Your task to perform on an android device: turn off data saver in the chrome app Image 0: 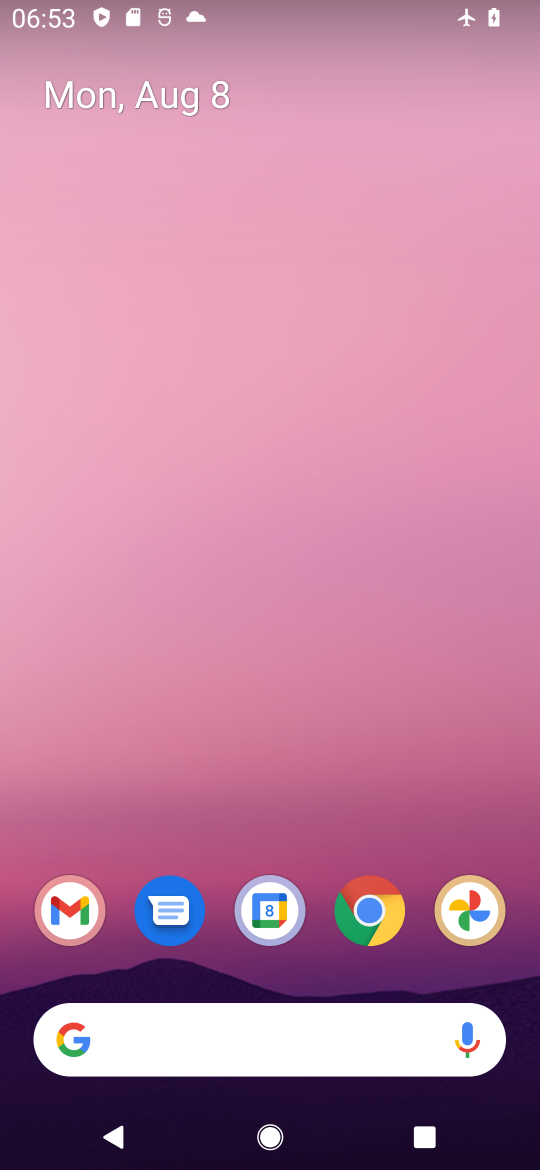
Step 0: click (367, 908)
Your task to perform on an android device: turn off data saver in the chrome app Image 1: 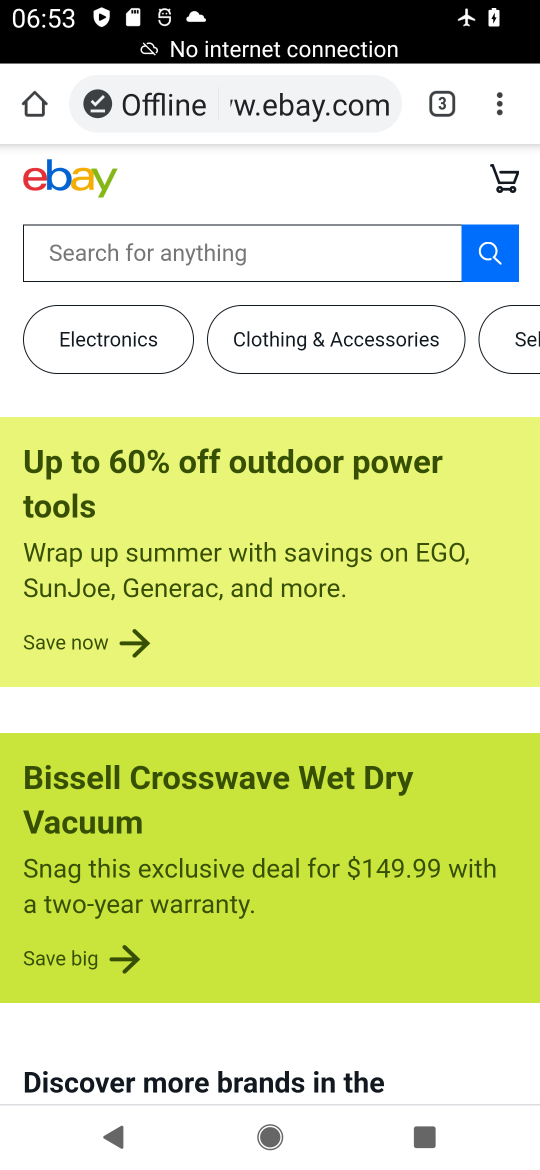
Step 1: click (502, 106)
Your task to perform on an android device: turn off data saver in the chrome app Image 2: 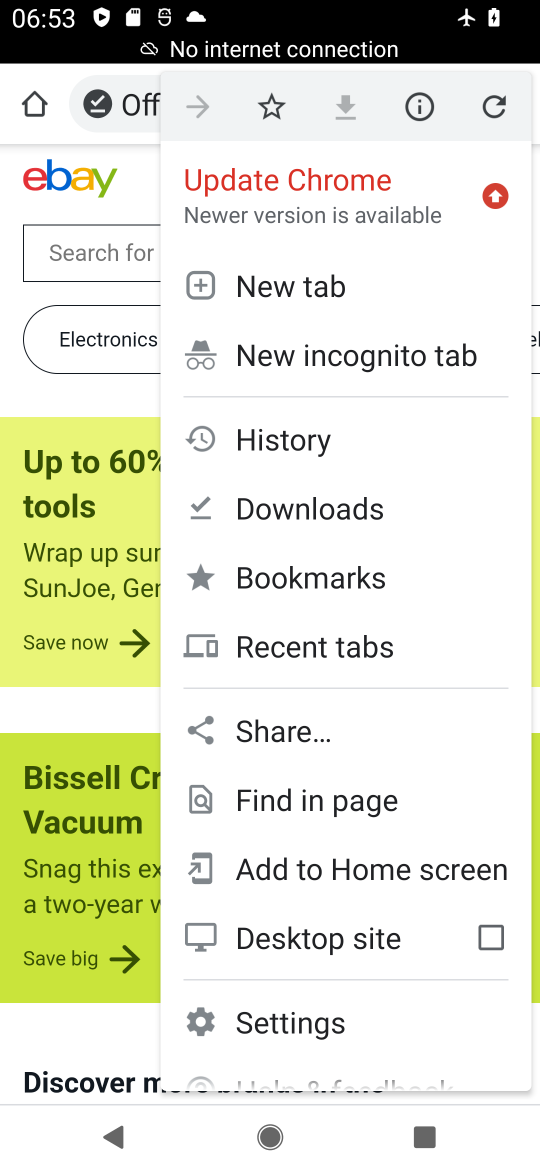
Step 2: drag from (341, 692) to (446, 528)
Your task to perform on an android device: turn off data saver in the chrome app Image 3: 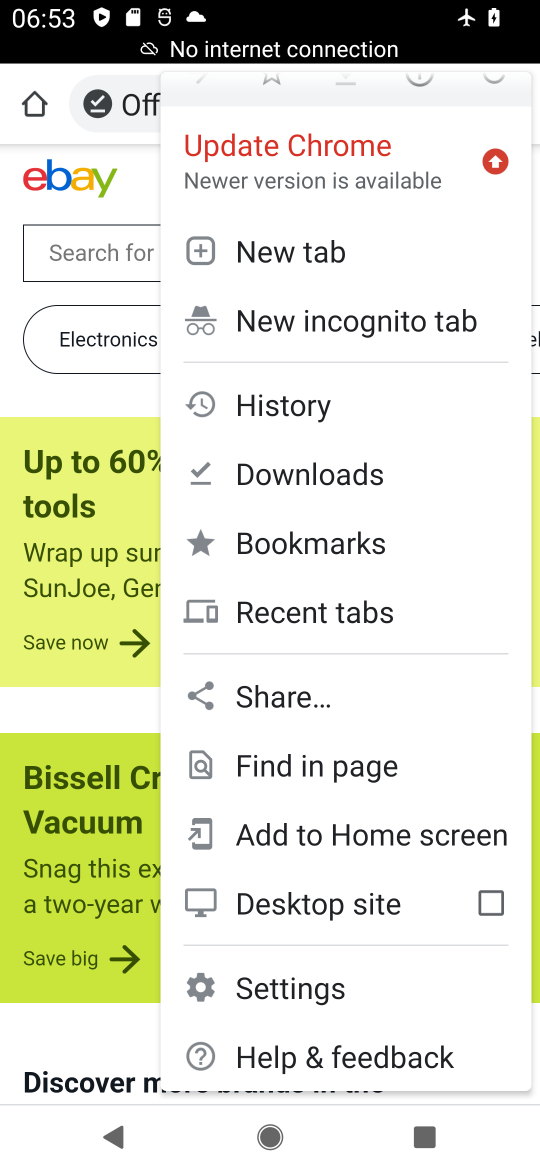
Step 3: click (304, 989)
Your task to perform on an android device: turn off data saver in the chrome app Image 4: 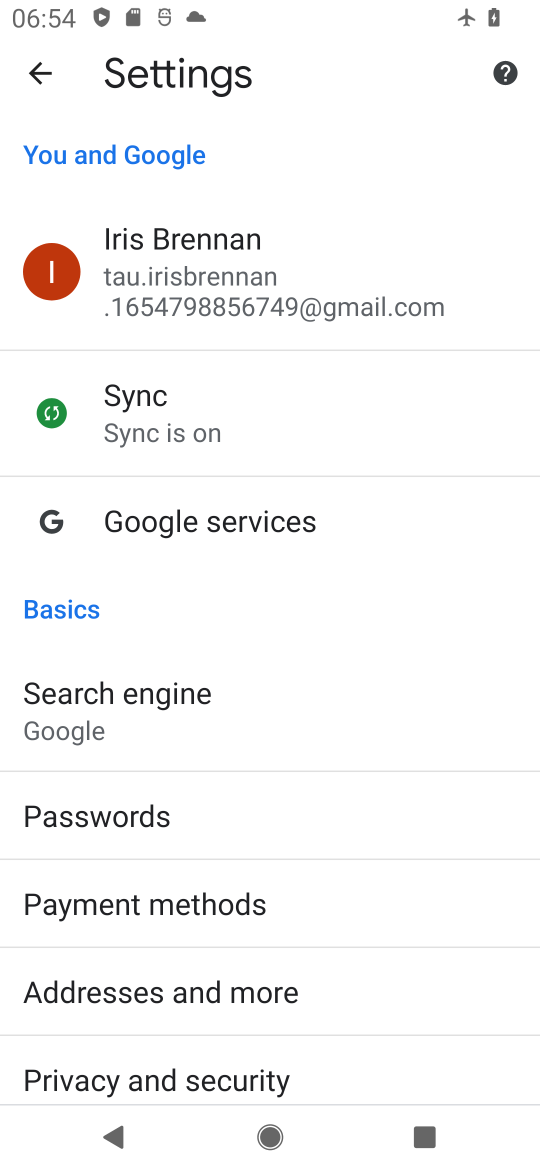
Step 4: drag from (161, 719) to (247, 577)
Your task to perform on an android device: turn off data saver in the chrome app Image 5: 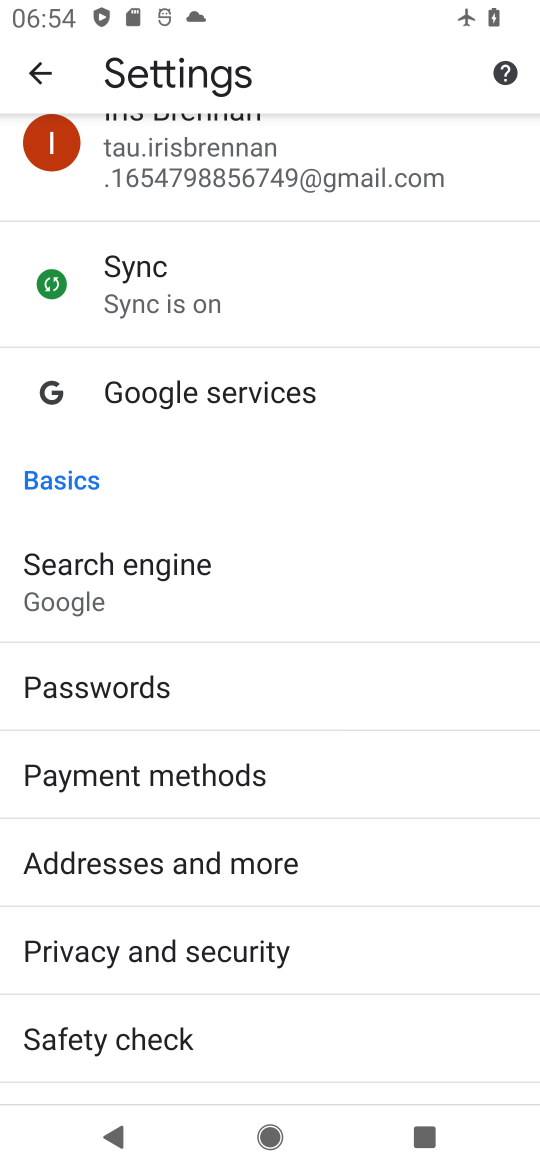
Step 5: drag from (153, 789) to (221, 649)
Your task to perform on an android device: turn off data saver in the chrome app Image 6: 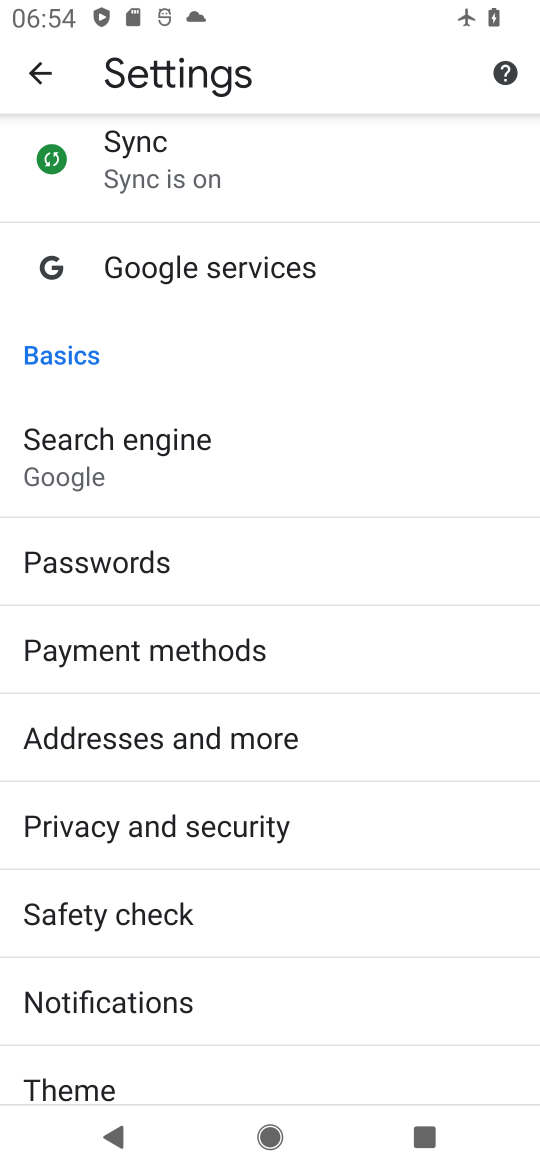
Step 6: drag from (214, 882) to (287, 762)
Your task to perform on an android device: turn off data saver in the chrome app Image 7: 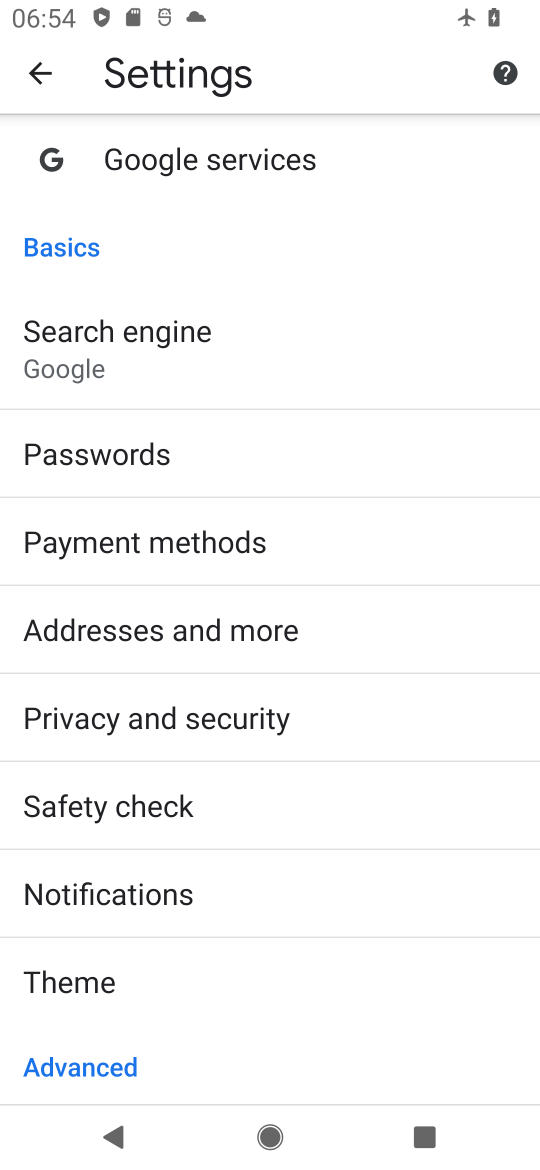
Step 7: drag from (172, 884) to (264, 748)
Your task to perform on an android device: turn off data saver in the chrome app Image 8: 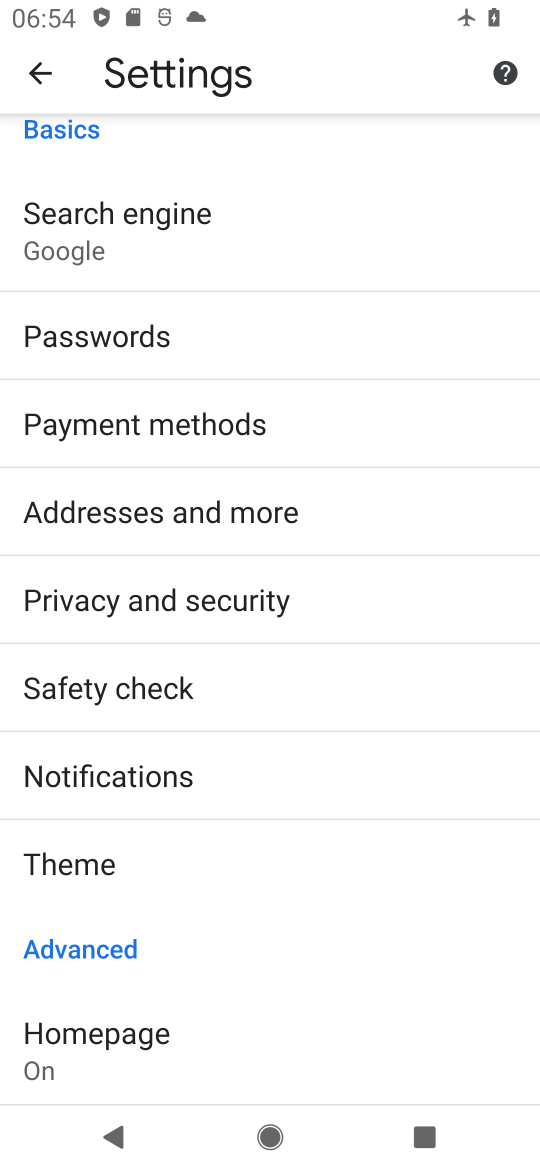
Step 8: drag from (152, 886) to (261, 714)
Your task to perform on an android device: turn off data saver in the chrome app Image 9: 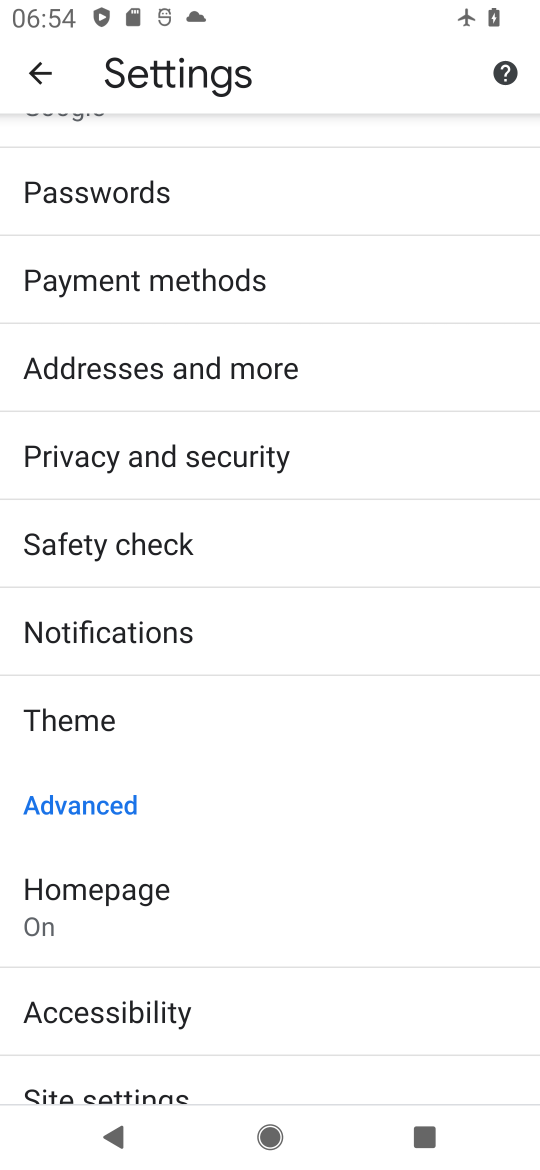
Step 9: drag from (157, 903) to (268, 737)
Your task to perform on an android device: turn off data saver in the chrome app Image 10: 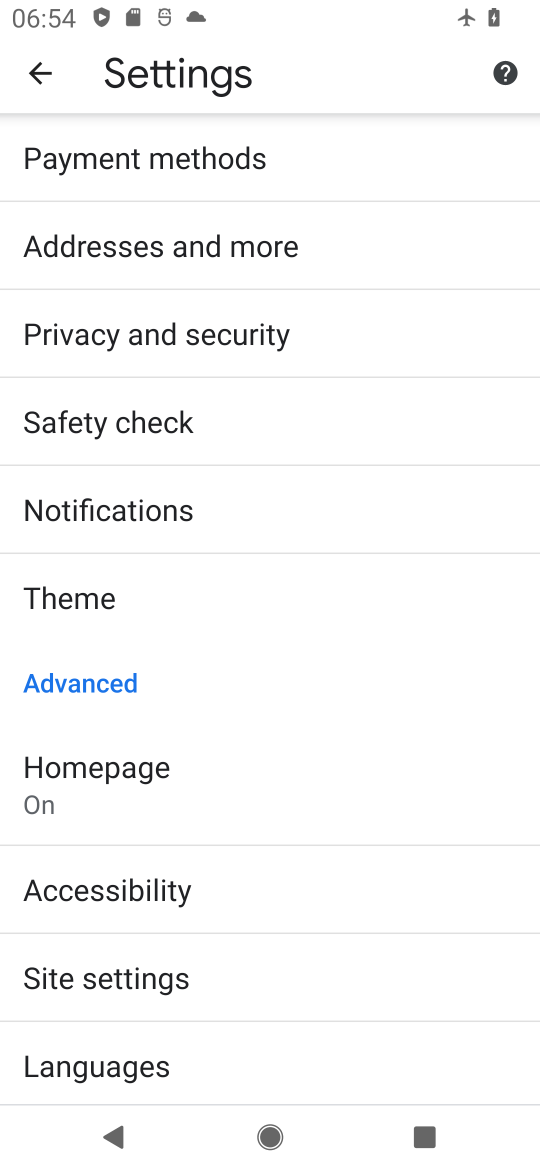
Step 10: drag from (171, 928) to (273, 763)
Your task to perform on an android device: turn off data saver in the chrome app Image 11: 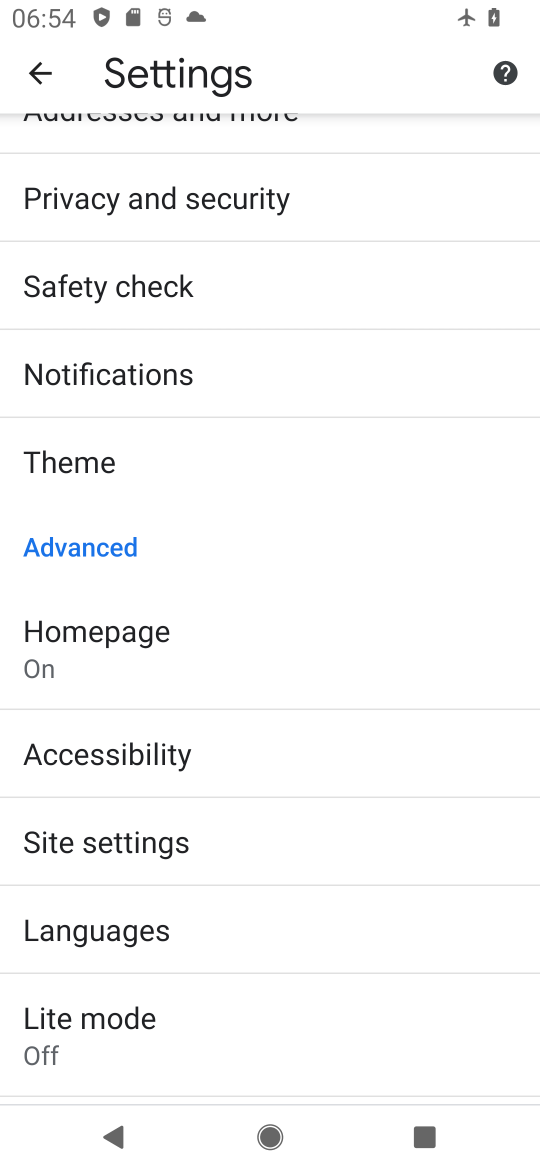
Step 11: drag from (200, 870) to (268, 754)
Your task to perform on an android device: turn off data saver in the chrome app Image 12: 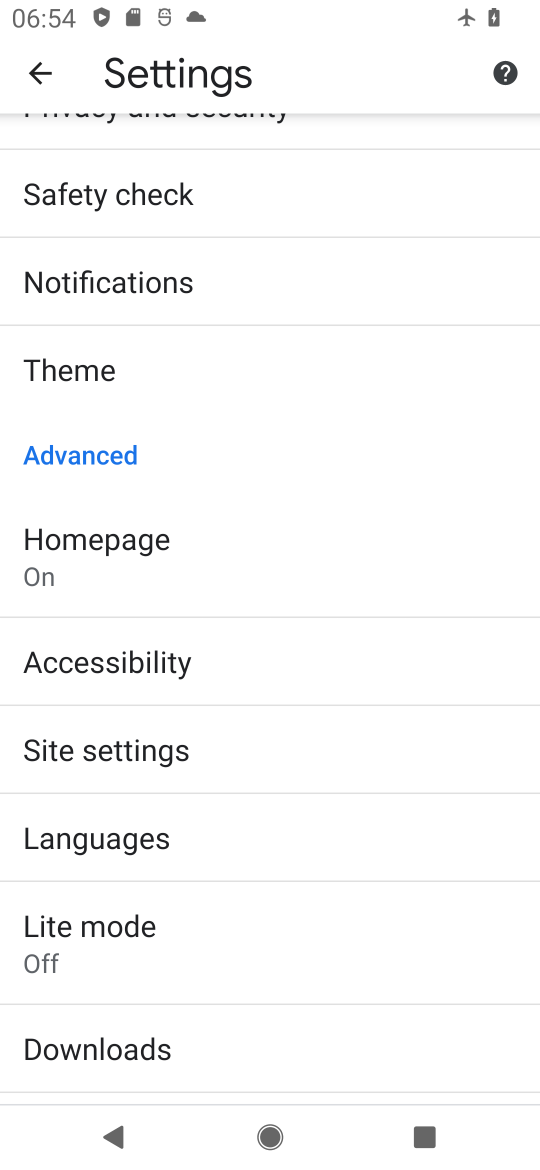
Step 12: drag from (184, 880) to (267, 723)
Your task to perform on an android device: turn off data saver in the chrome app Image 13: 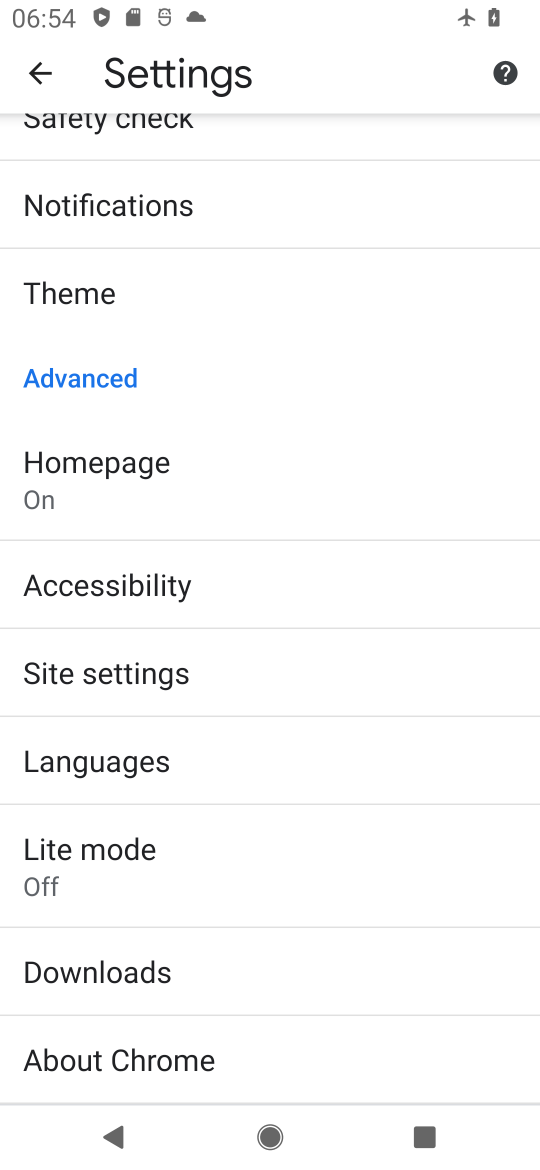
Step 13: click (141, 854)
Your task to perform on an android device: turn off data saver in the chrome app Image 14: 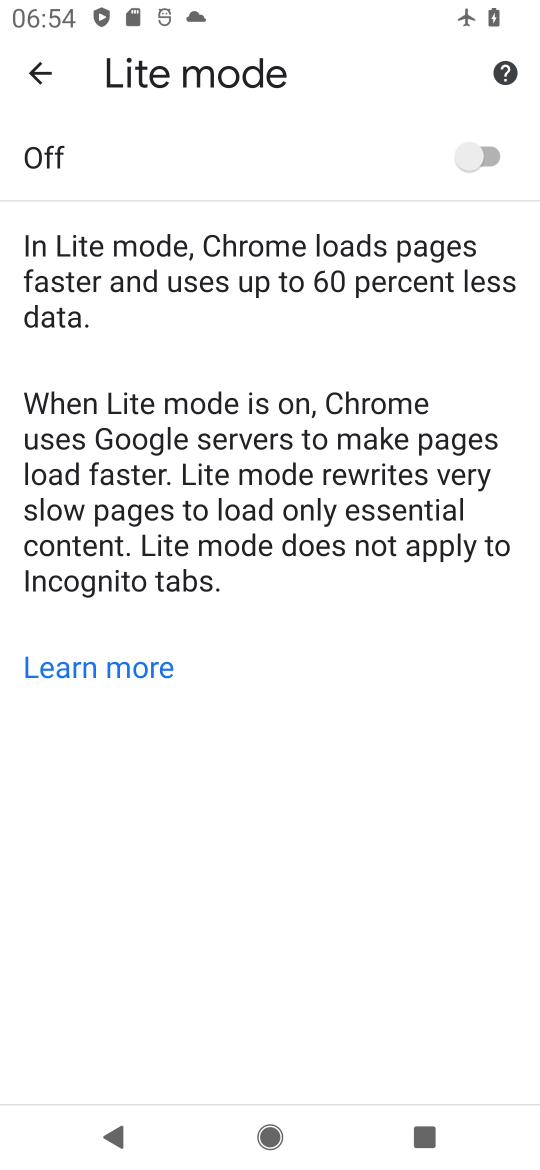
Step 14: task complete